Your task to perform on an android device: turn on sleep mode Image 0: 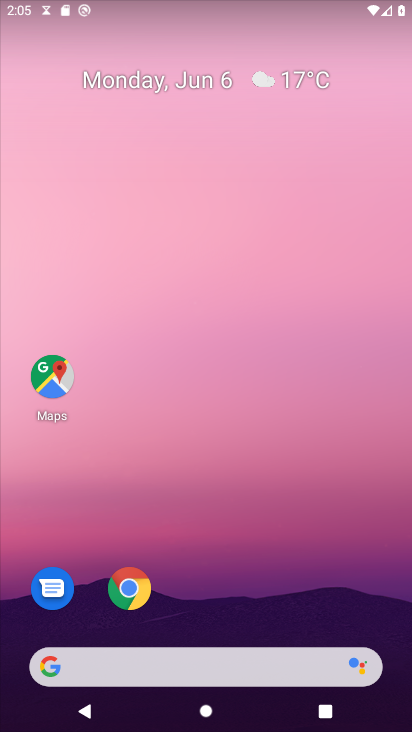
Step 0: drag from (196, 622) to (226, 99)
Your task to perform on an android device: turn on sleep mode Image 1: 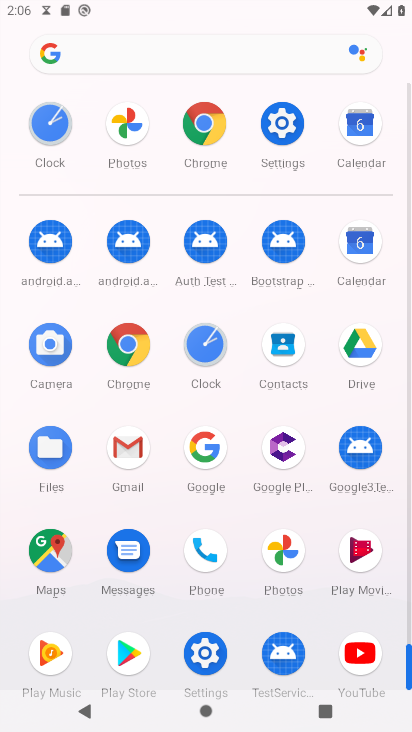
Step 1: click (284, 124)
Your task to perform on an android device: turn on sleep mode Image 2: 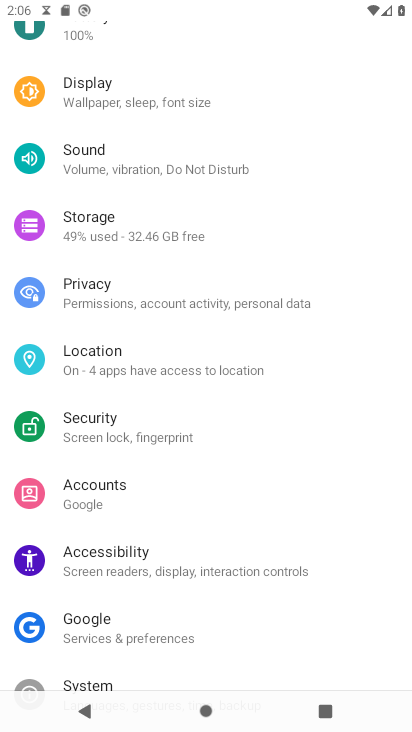
Step 2: task complete